Your task to perform on an android device: Show me recent news Image 0: 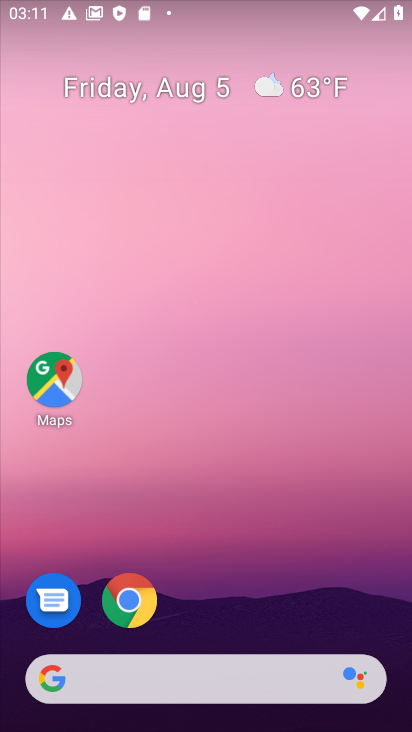
Step 0: drag from (204, 685) to (217, 219)
Your task to perform on an android device: Show me recent news Image 1: 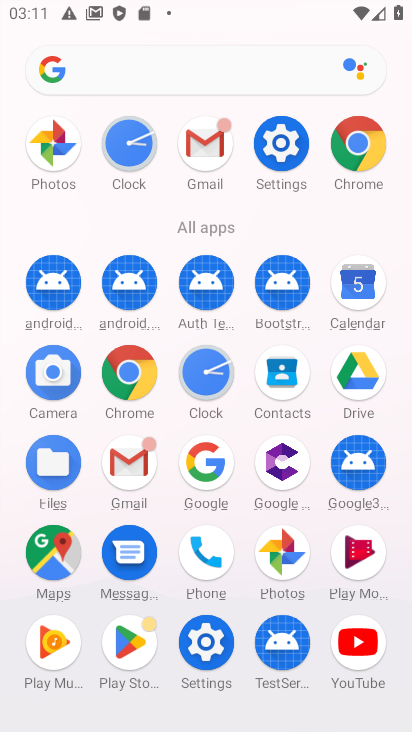
Step 1: click (203, 459)
Your task to perform on an android device: Show me recent news Image 2: 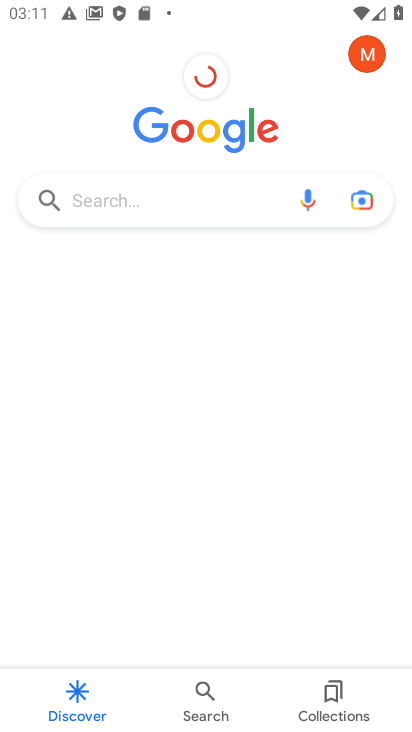
Step 2: click (178, 202)
Your task to perform on an android device: Show me recent news Image 3: 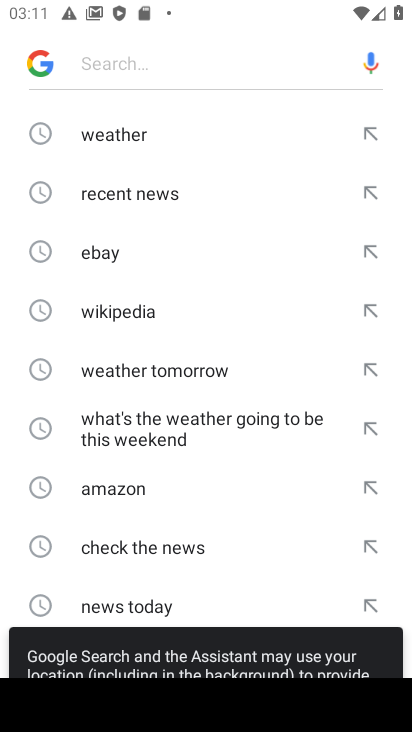
Step 3: click (151, 197)
Your task to perform on an android device: Show me recent news Image 4: 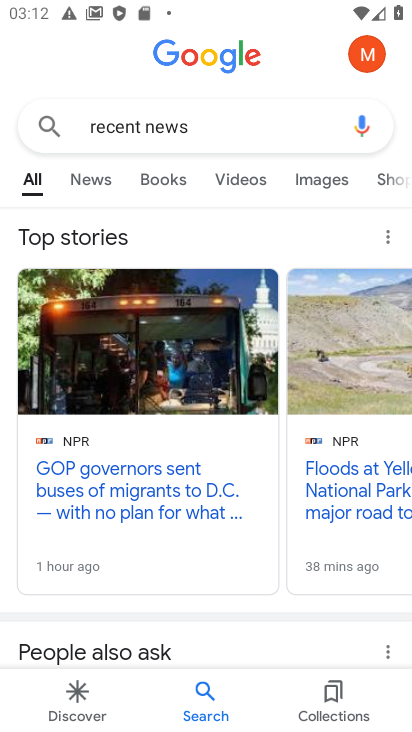
Step 4: click (131, 512)
Your task to perform on an android device: Show me recent news Image 5: 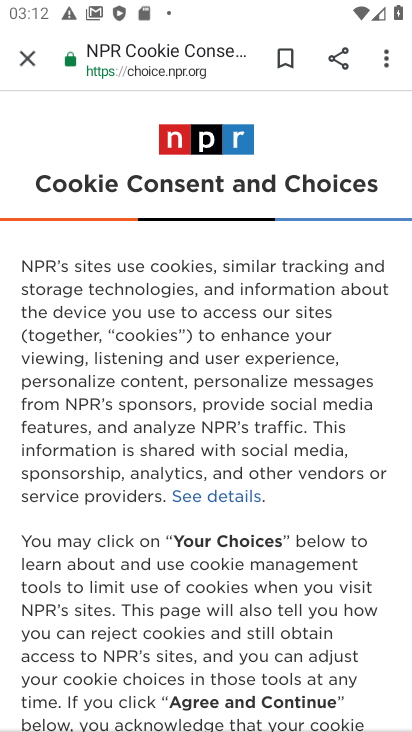
Step 5: task complete